Your task to perform on an android device: check android version Image 0: 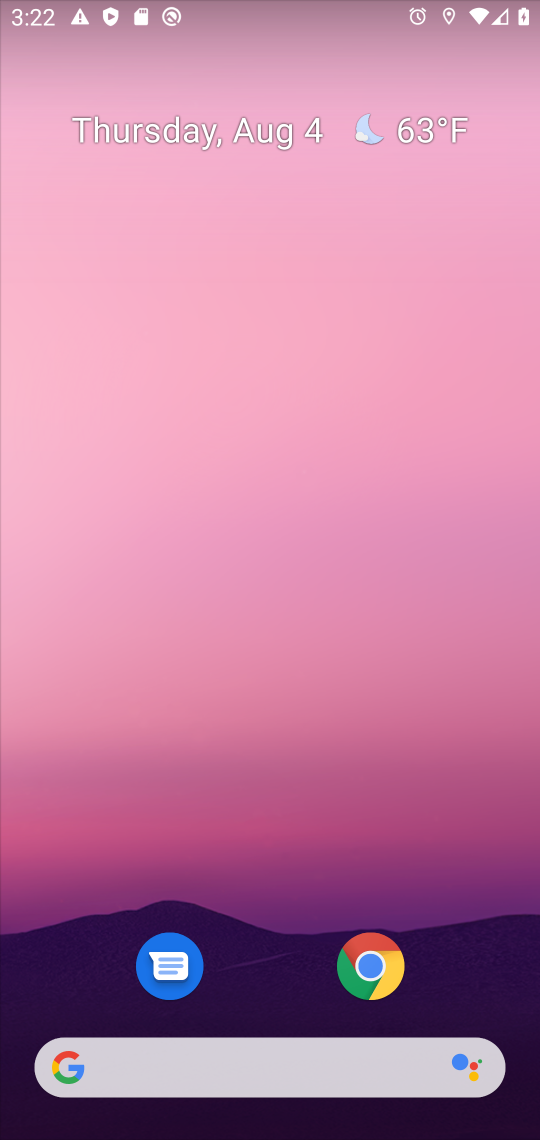
Step 0: drag from (279, 963) to (289, 44)
Your task to perform on an android device: check android version Image 1: 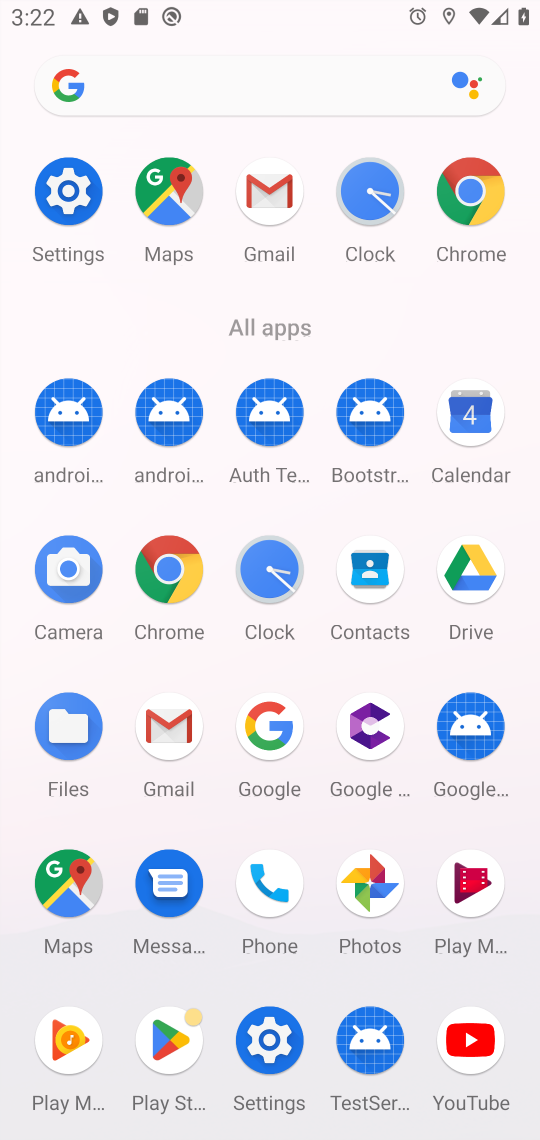
Step 1: click (69, 191)
Your task to perform on an android device: check android version Image 2: 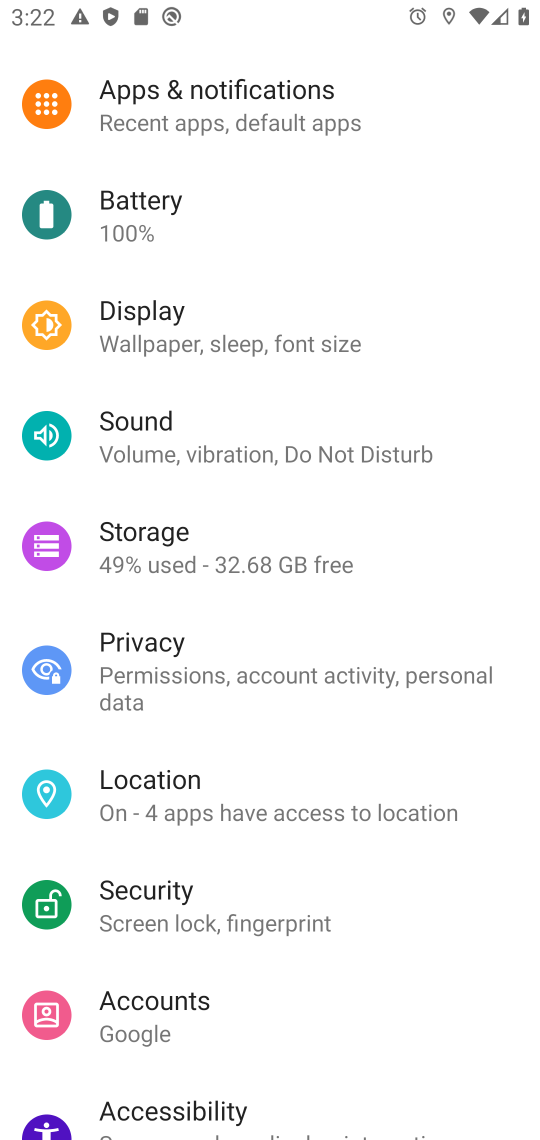
Step 2: drag from (392, 1027) to (393, 138)
Your task to perform on an android device: check android version Image 3: 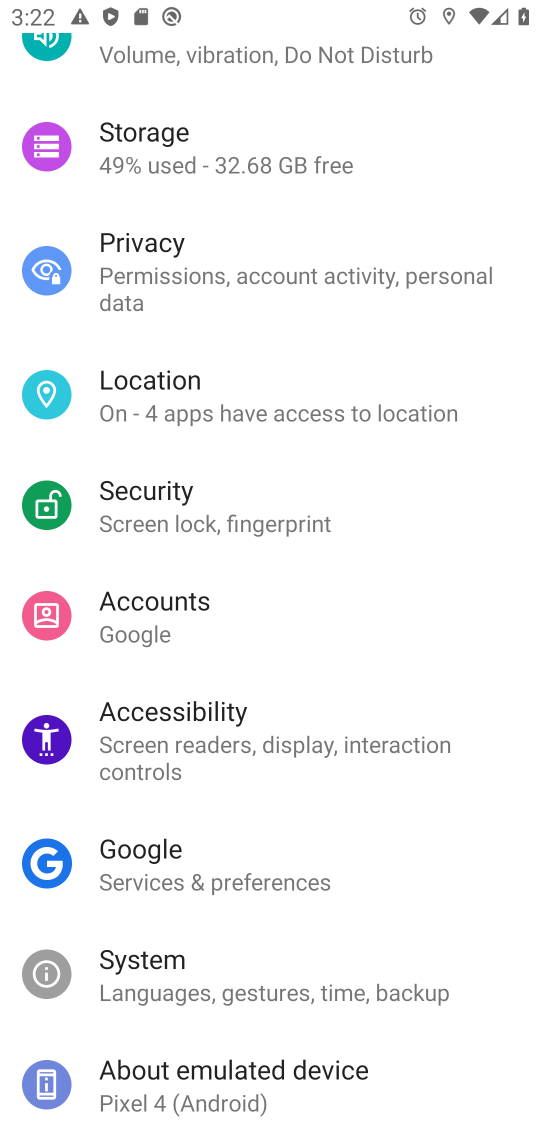
Step 3: click (210, 1097)
Your task to perform on an android device: check android version Image 4: 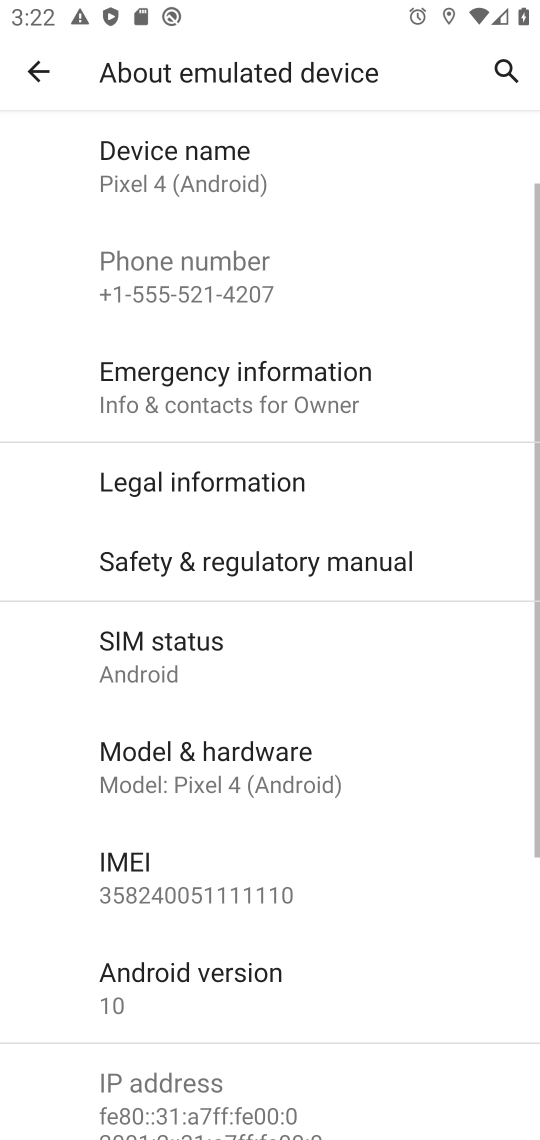
Step 4: task complete